Your task to perform on an android device: turn off javascript in the chrome app Image 0: 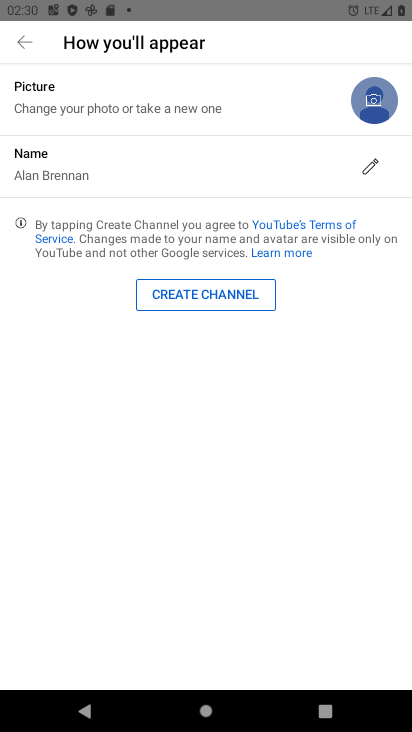
Step 0: press home button
Your task to perform on an android device: turn off javascript in the chrome app Image 1: 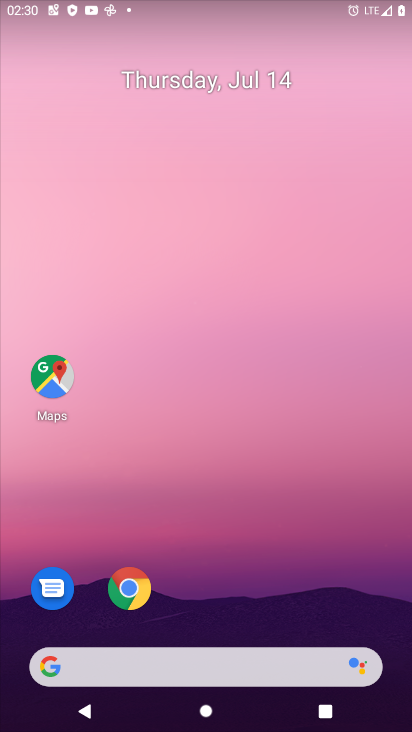
Step 1: click (116, 588)
Your task to perform on an android device: turn off javascript in the chrome app Image 2: 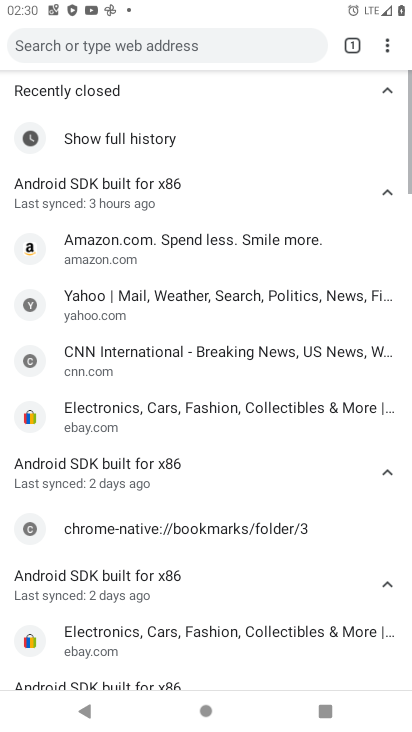
Step 2: click (382, 51)
Your task to perform on an android device: turn off javascript in the chrome app Image 3: 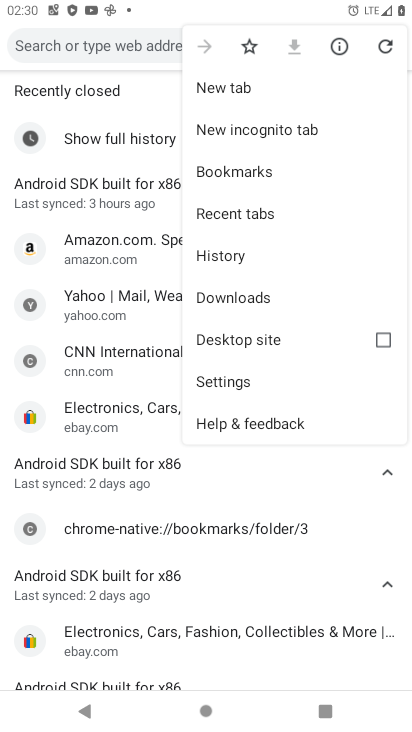
Step 3: click (235, 385)
Your task to perform on an android device: turn off javascript in the chrome app Image 4: 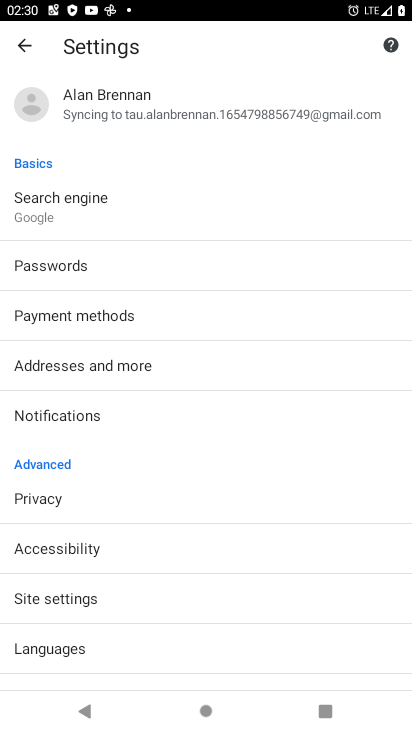
Step 4: click (85, 602)
Your task to perform on an android device: turn off javascript in the chrome app Image 5: 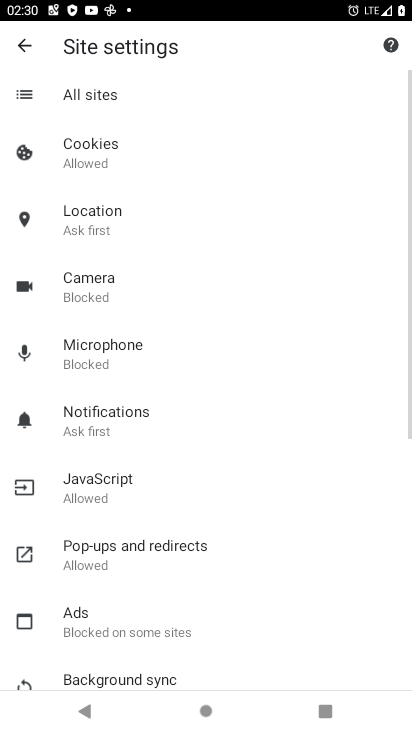
Step 5: click (124, 501)
Your task to perform on an android device: turn off javascript in the chrome app Image 6: 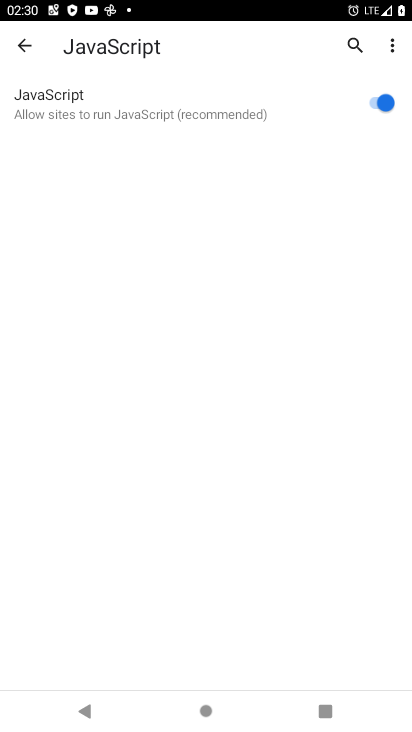
Step 6: click (386, 100)
Your task to perform on an android device: turn off javascript in the chrome app Image 7: 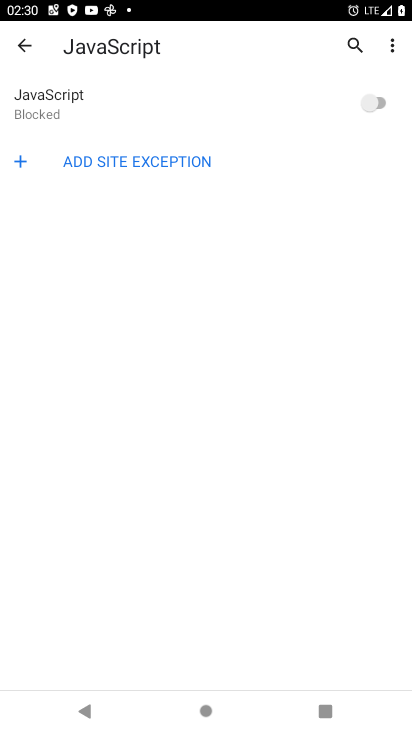
Step 7: task complete